Your task to perform on an android device: snooze an email in the gmail app Image 0: 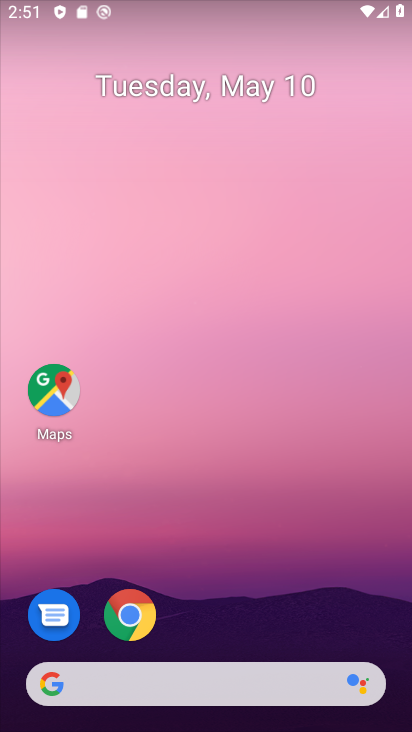
Step 0: drag from (252, 596) to (252, 178)
Your task to perform on an android device: snooze an email in the gmail app Image 1: 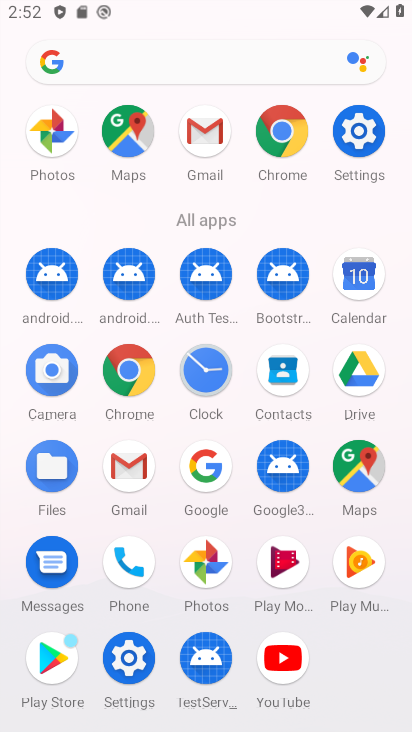
Step 1: click (127, 480)
Your task to perform on an android device: snooze an email in the gmail app Image 2: 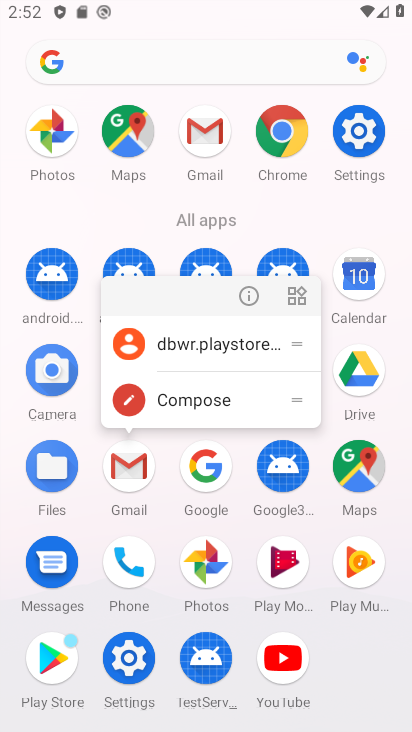
Step 2: click (137, 465)
Your task to perform on an android device: snooze an email in the gmail app Image 3: 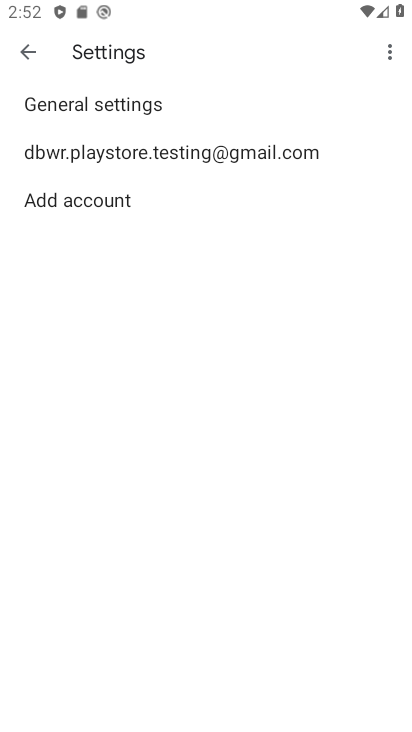
Step 3: drag from (169, 151) to (312, 470)
Your task to perform on an android device: snooze an email in the gmail app Image 4: 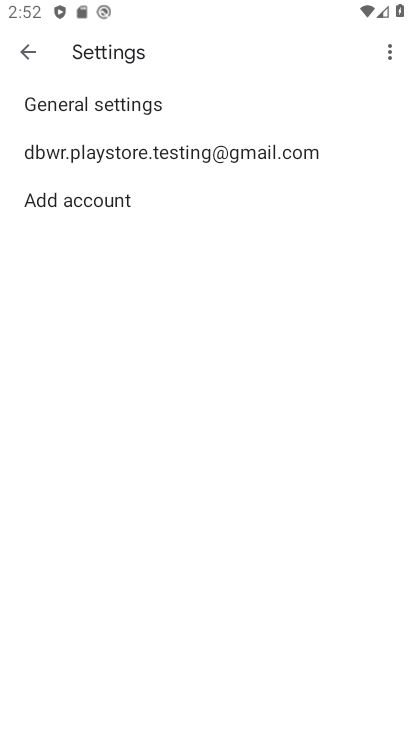
Step 4: press back button
Your task to perform on an android device: snooze an email in the gmail app Image 5: 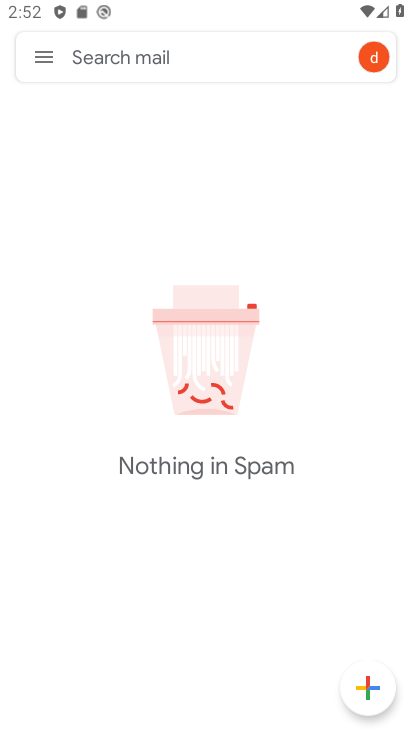
Step 5: click (47, 68)
Your task to perform on an android device: snooze an email in the gmail app Image 6: 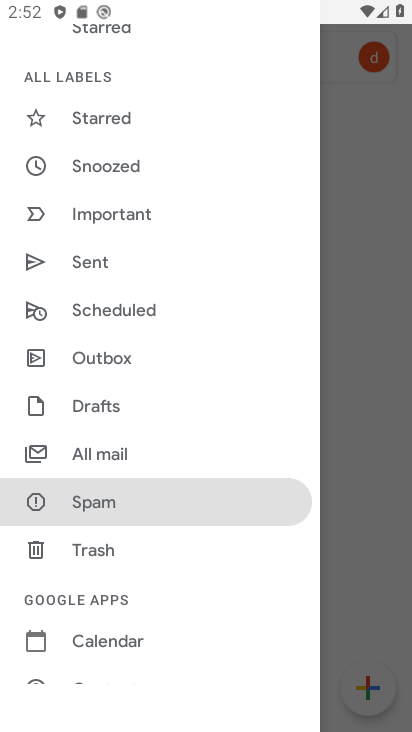
Step 6: click (116, 459)
Your task to perform on an android device: snooze an email in the gmail app Image 7: 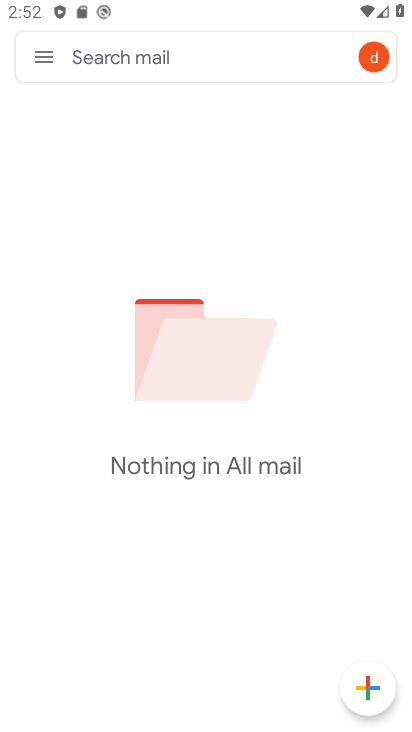
Step 7: task complete